Your task to perform on an android device: change alarm snooze length Image 0: 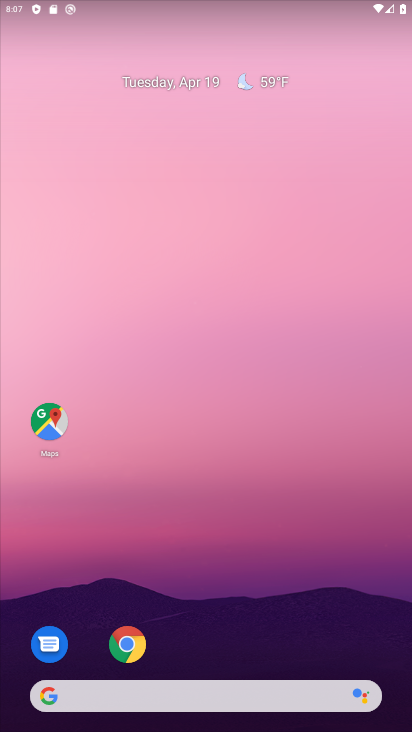
Step 0: drag from (199, 362) to (114, 44)
Your task to perform on an android device: change alarm snooze length Image 1: 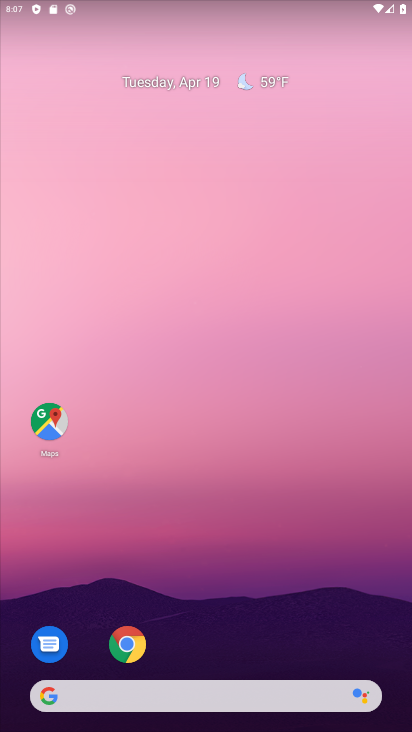
Step 1: drag from (247, 519) to (239, 208)
Your task to perform on an android device: change alarm snooze length Image 2: 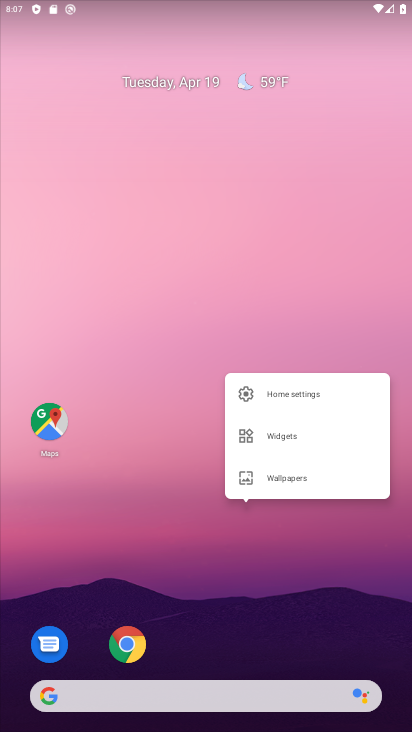
Step 2: drag from (235, 646) to (235, 79)
Your task to perform on an android device: change alarm snooze length Image 3: 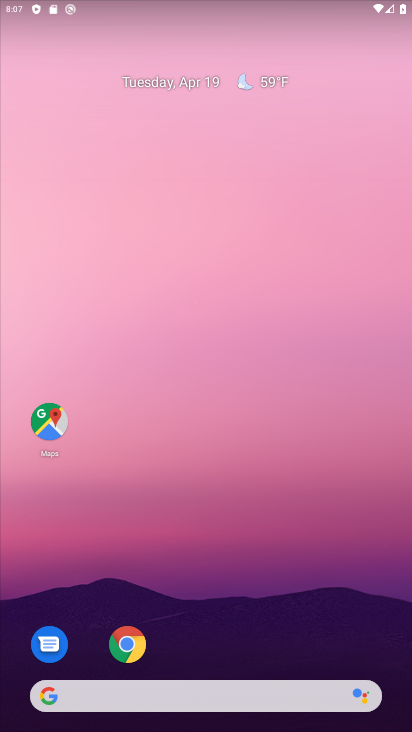
Step 3: drag from (128, 344) to (119, 173)
Your task to perform on an android device: change alarm snooze length Image 4: 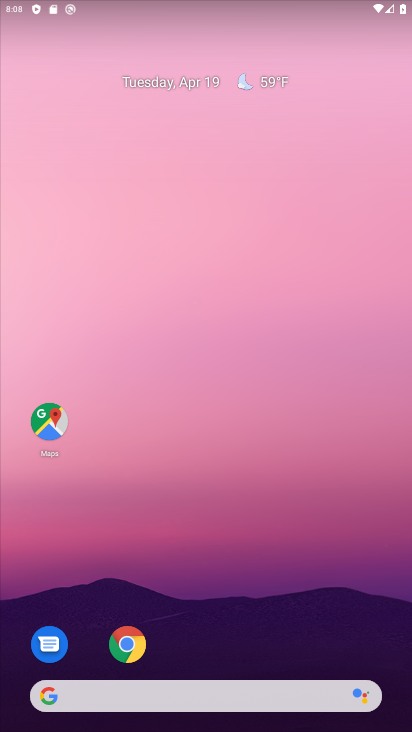
Step 4: drag from (277, 437) to (261, 151)
Your task to perform on an android device: change alarm snooze length Image 5: 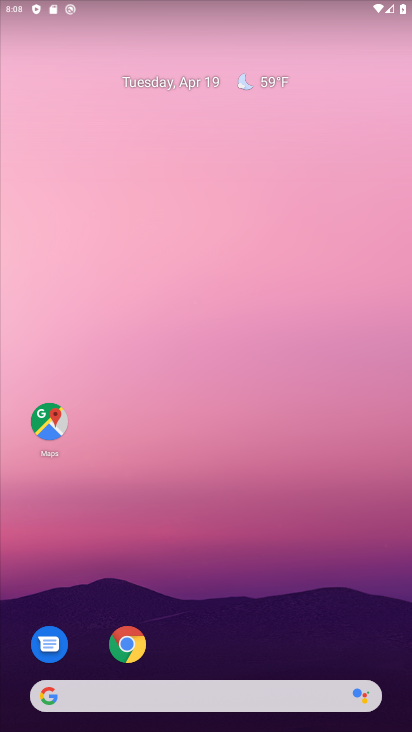
Step 5: drag from (267, 552) to (261, 152)
Your task to perform on an android device: change alarm snooze length Image 6: 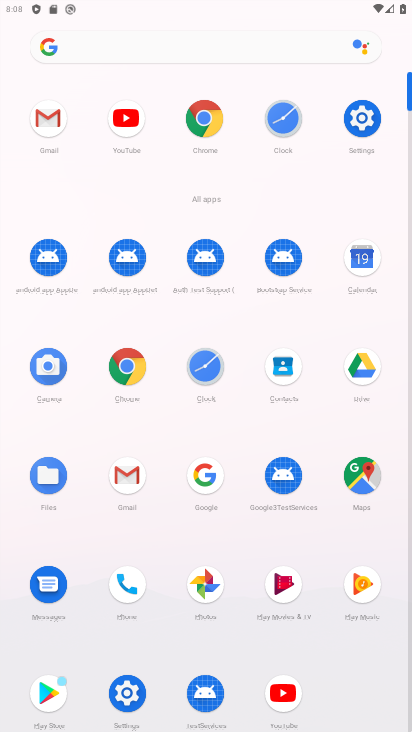
Step 6: click (199, 381)
Your task to perform on an android device: change alarm snooze length Image 7: 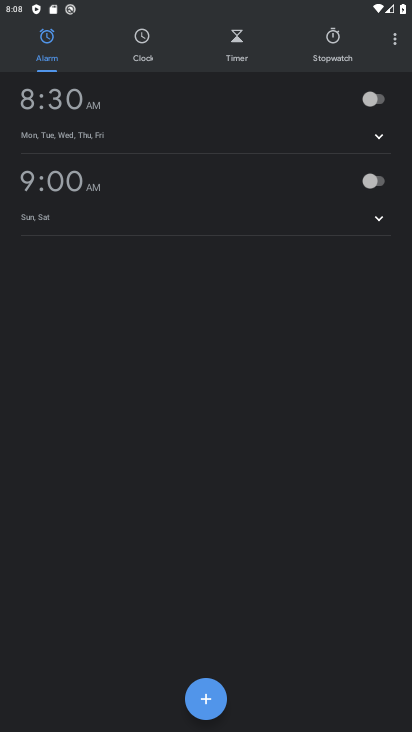
Step 7: click (395, 43)
Your task to perform on an android device: change alarm snooze length Image 8: 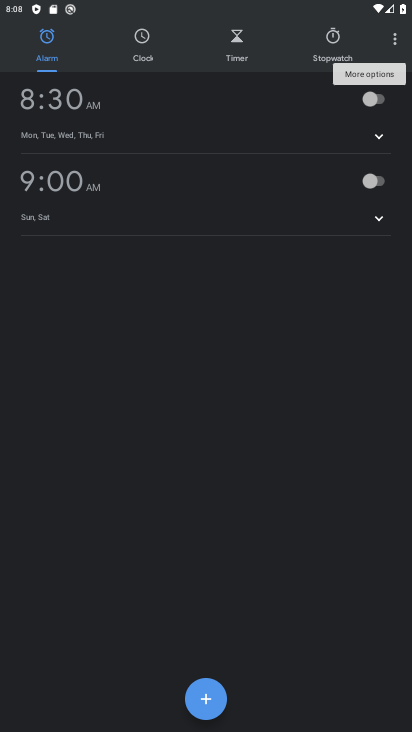
Step 8: click (394, 50)
Your task to perform on an android device: change alarm snooze length Image 9: 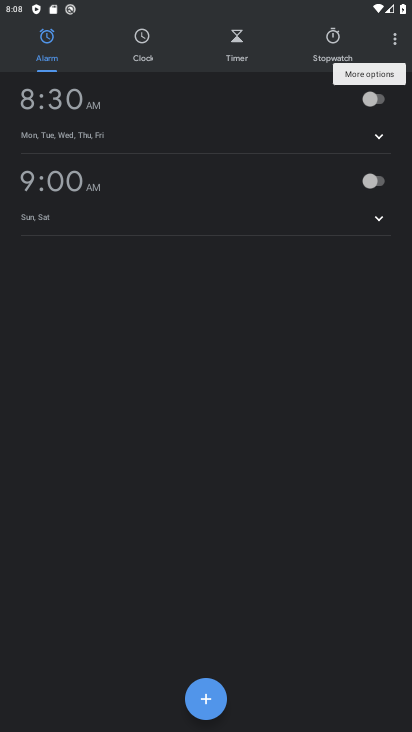
Step 9: click (395, 40)
Your task to perform on an android device: change alarm snooze length Image 10: 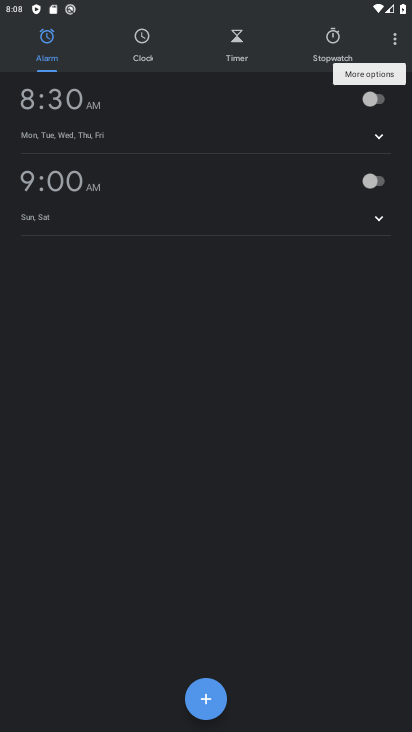
Step 10: click (396, 49)
Your task to perform on an android device: change alarm snooze length Image 11: 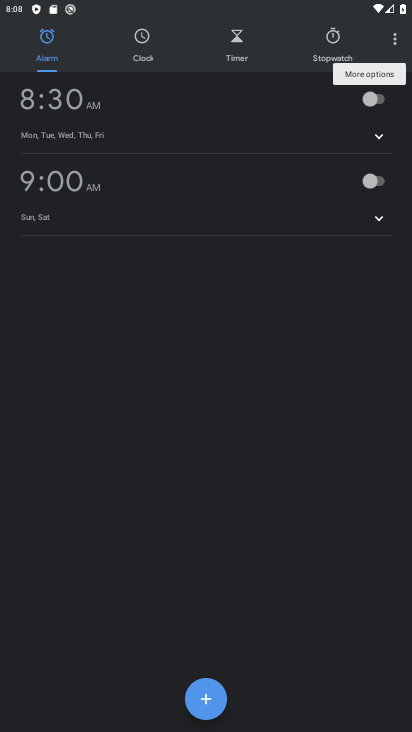
Step 11: click (396, 49)
Your task to perform on an android device: change alarm snooze length Image 12: 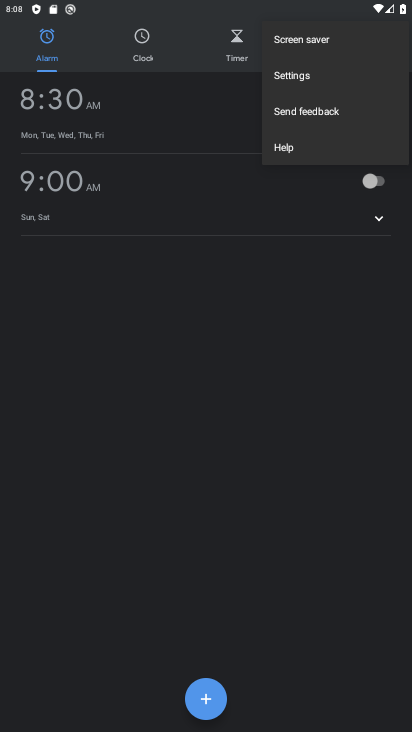
Step 12: click (312, 73)
Your task to perform on an android device: change alarm snooze length Image 13: 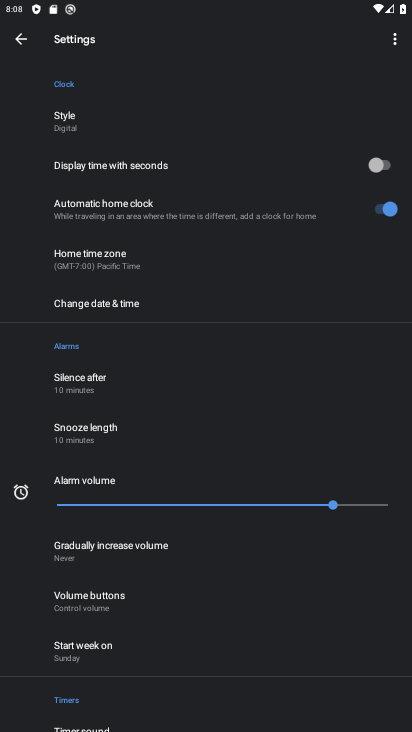
Step 13: click (104, 434)
Your task to perform on an android device: change alarm snooze length Image 14: 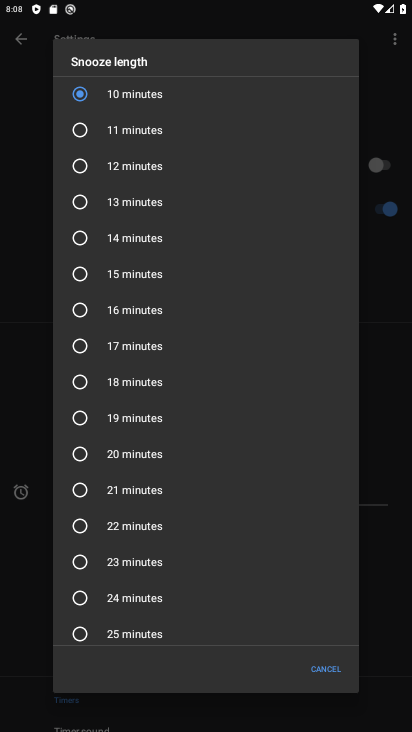
Step 14: click (142, 122)
Your task to perform on an android device: change alarm snooze length Image 15: 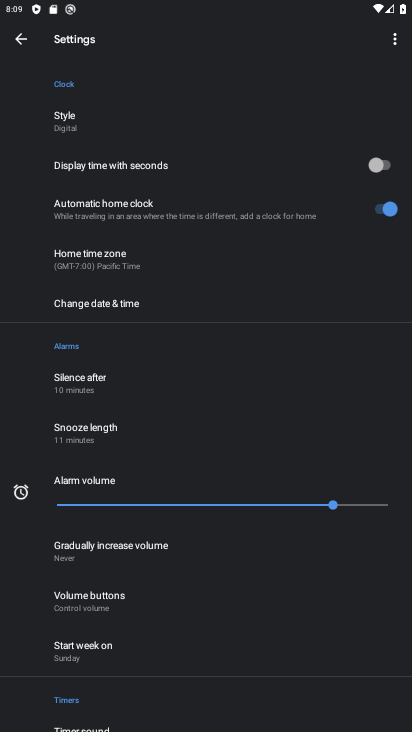
Step 15: task complete